Your task to perform on an android device: toggle location history Image 0: 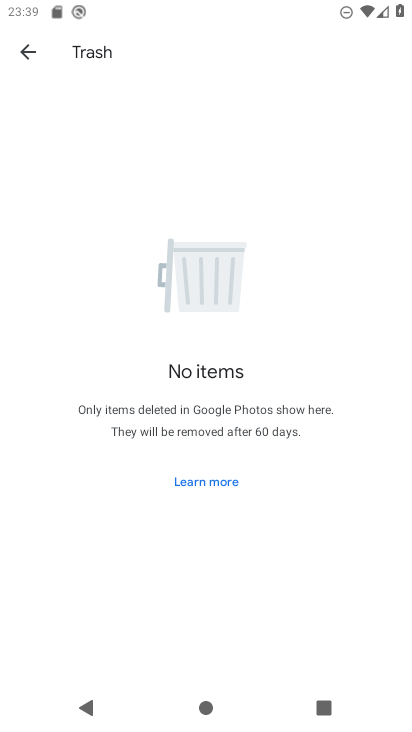
Step 0: press home button
Your task to perform on an android device: toggle location history Image 1: 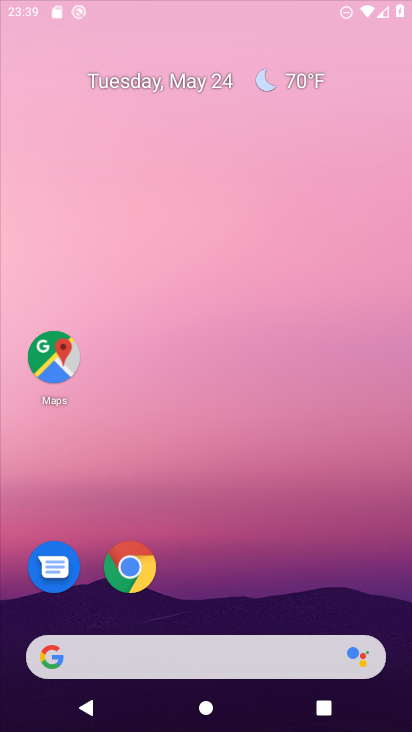
Step 1: drag from (293, 412) to (218, 14)
Your task to perform on an android device: toggle location history Image 2: 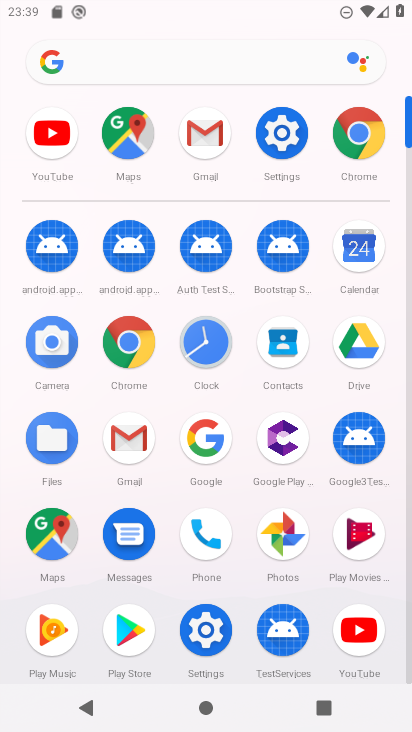
Step 2: click (281, 132)
Your task to perform on an android device: toggle location history Image 3: 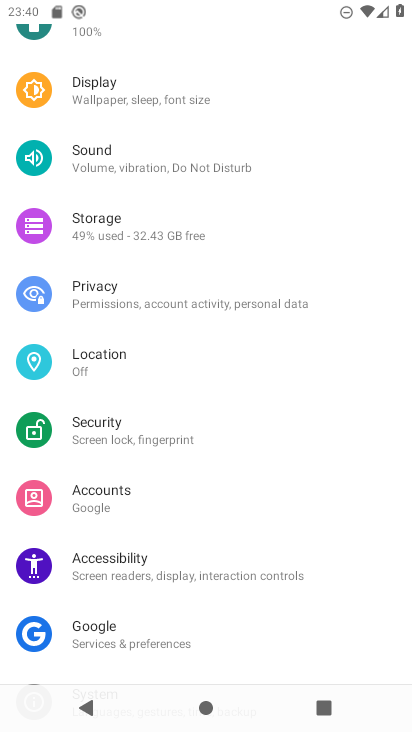
Step 3: click (211, 367)
Your task to perform on an android device: toggle location history Image 4: 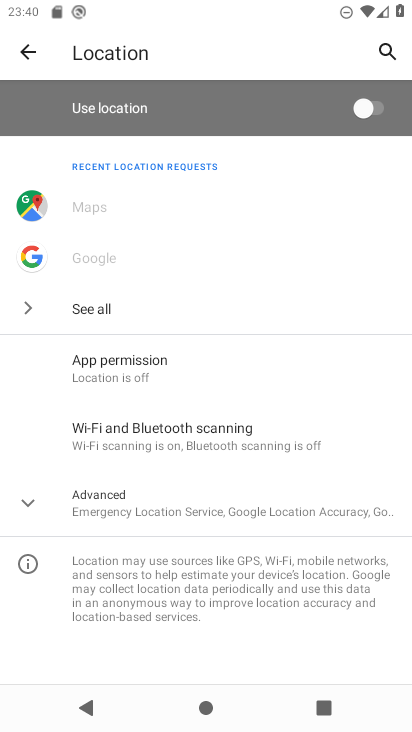
Step 4: click (201, 500)
Your task to perform on an android device: toggle location history Image 5: 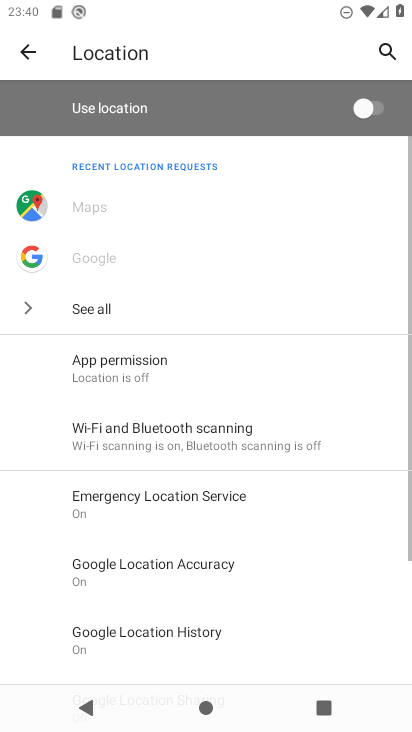
Step 5: click (205, 643)
Your task to perform on an android device: toggle location history Image 6: 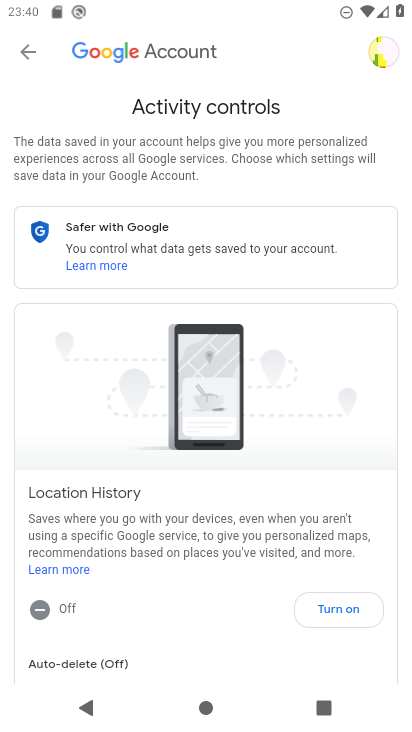
Step 6: click (349, 612)
Your task to perform on an android device: toggle location history Image 7: 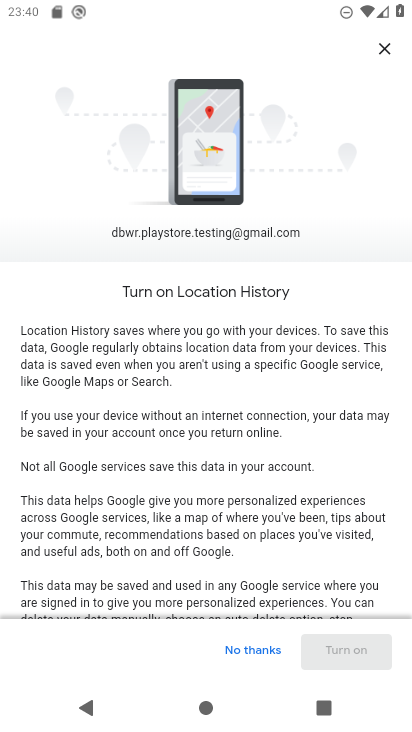
Step 7: drag from (315, 528) to (209, 14)
Your task to perform on an android device: toggle location history Image 8: 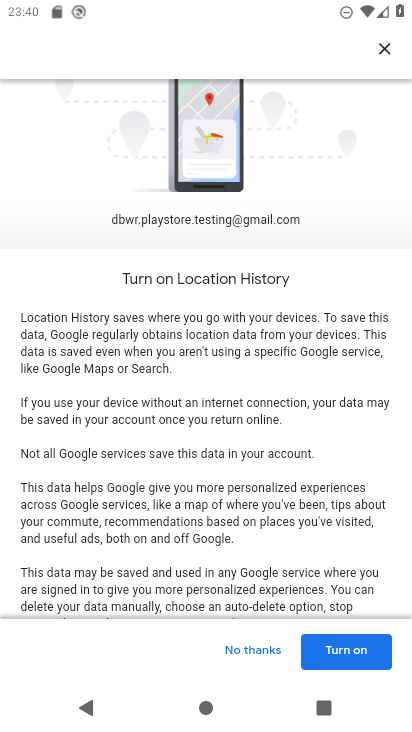
Step 8: click (351, 644)
Your task to perform on an android device: toggle location history Image 9: 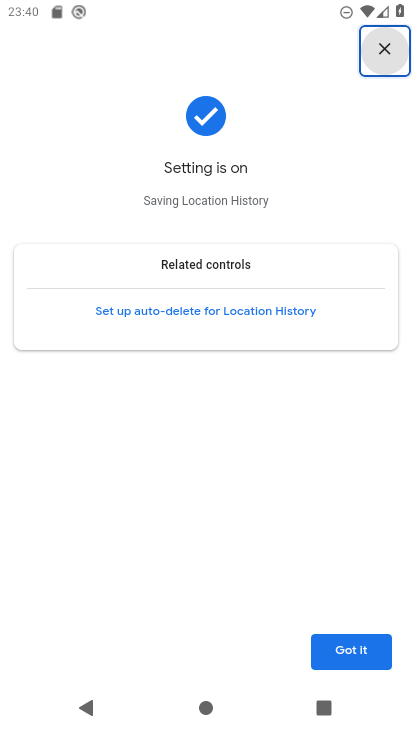
Step 9: click (359, 651)
Your task to perform on an android device: toggle location history Image 10: 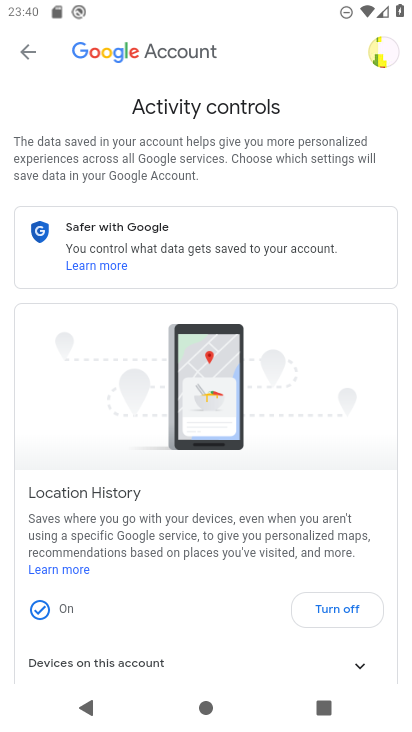
Step 10: task complete